Your task to perform on an android device: open app "LiveIn - Share Your Moment" (install if not already installed) and go to login screen Image 0: 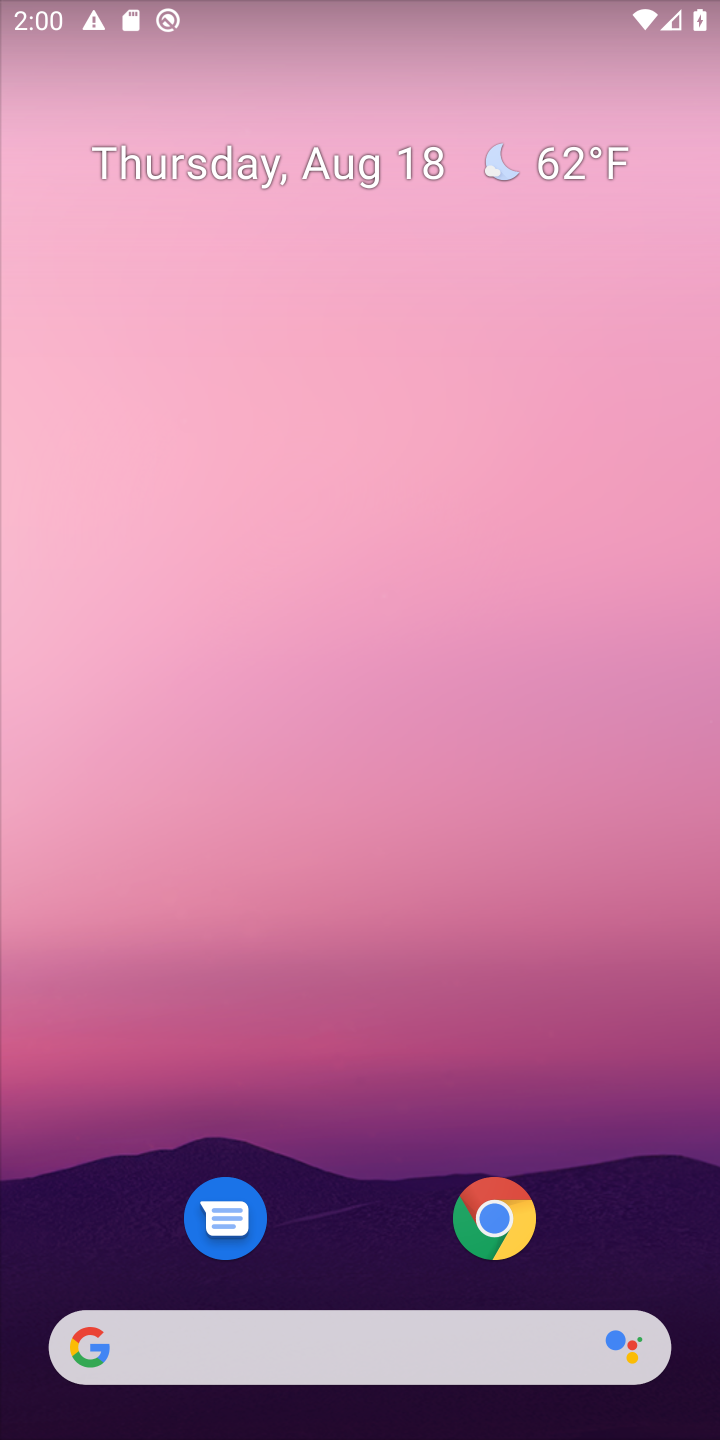
Step 0: drag from (332, 878) to (412, 222)
Your task to perform on an android device: open app "LiveIn - Share Your Moment" (install if not already installed) and go to login screen Image 1: 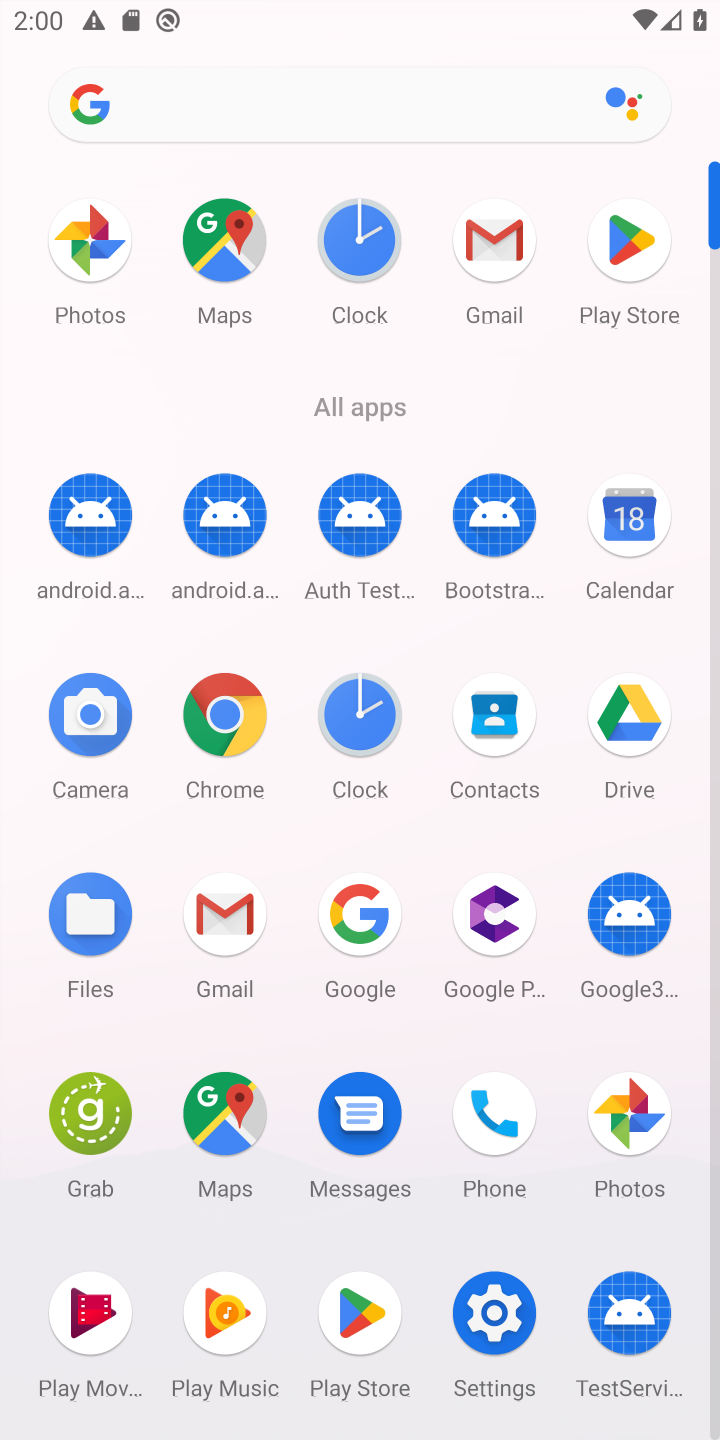
Step 1: click (601, 252)
Your task to perform on an android device: open app "LiveIn - Share Your Moment" (install if not already installed) and go to login screen Image 2: 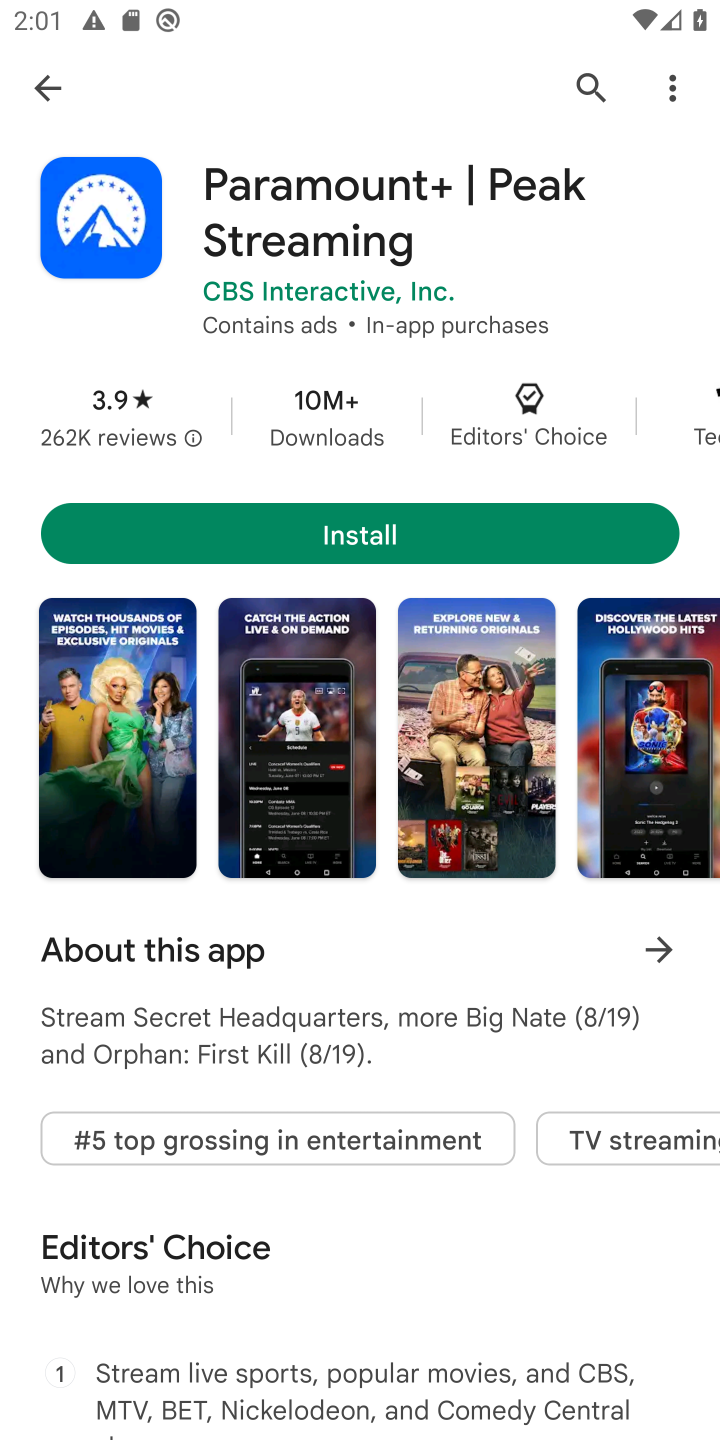
Step 2: click (589, 78)
Your task to perform on an android device: open app "LiveIn - Share Your Moment" (install if not already installed) and go to login screen Image 3: 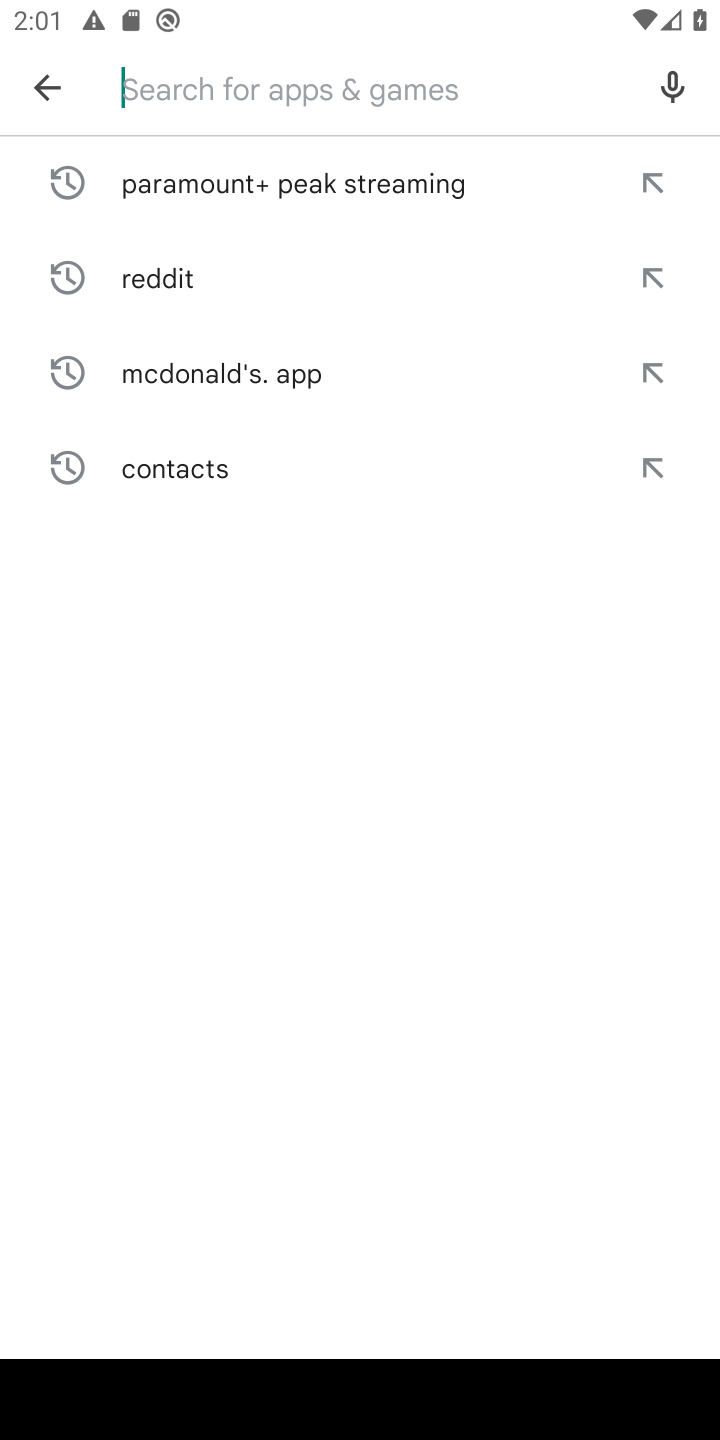
Step 3: type "LiveIn - Share Your Moment"
Your task to perform on an android device: open app "LiveIn - Share Your Moment" (install if not already installed) and go to login screen Image 4: 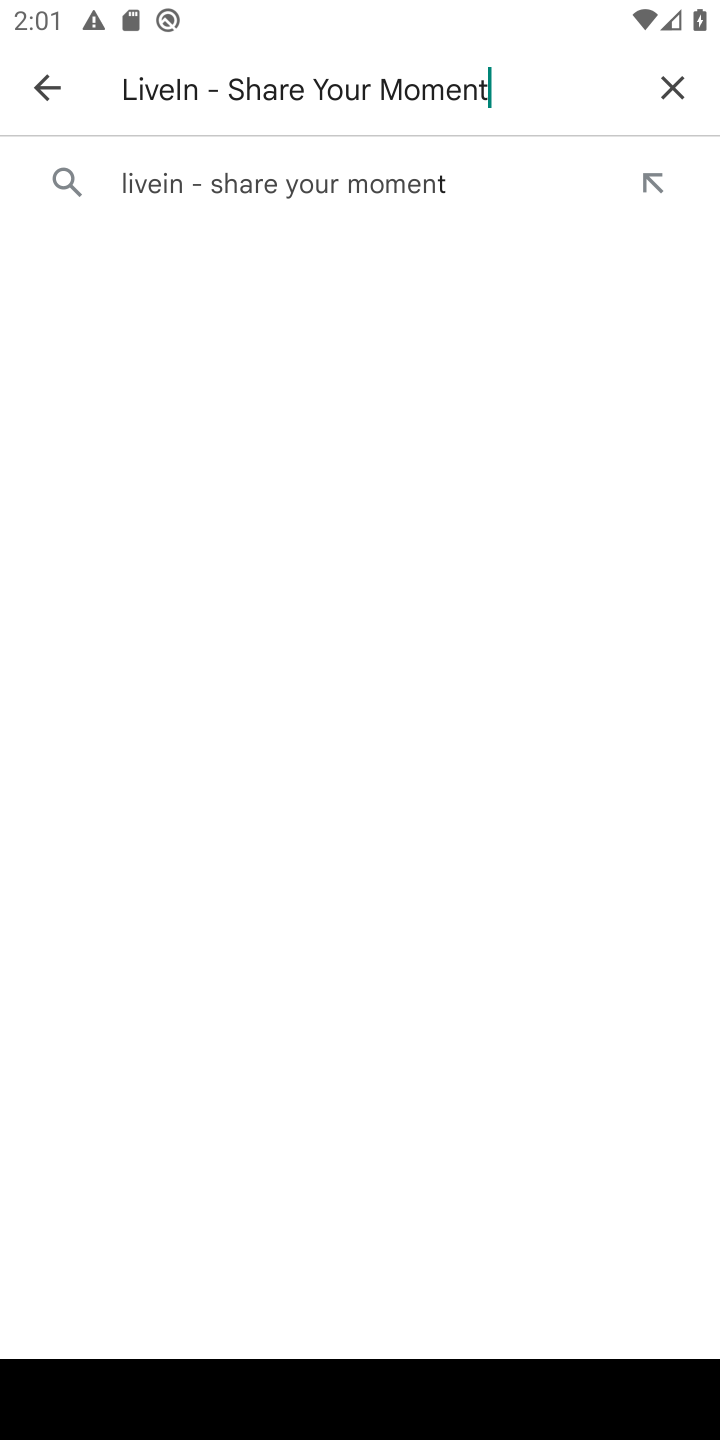
Step 4: type ""
Your task to perform on an android device: open app "LiveIn - Share Your Moment" (install if not already installed) and go to login screen Image 5: 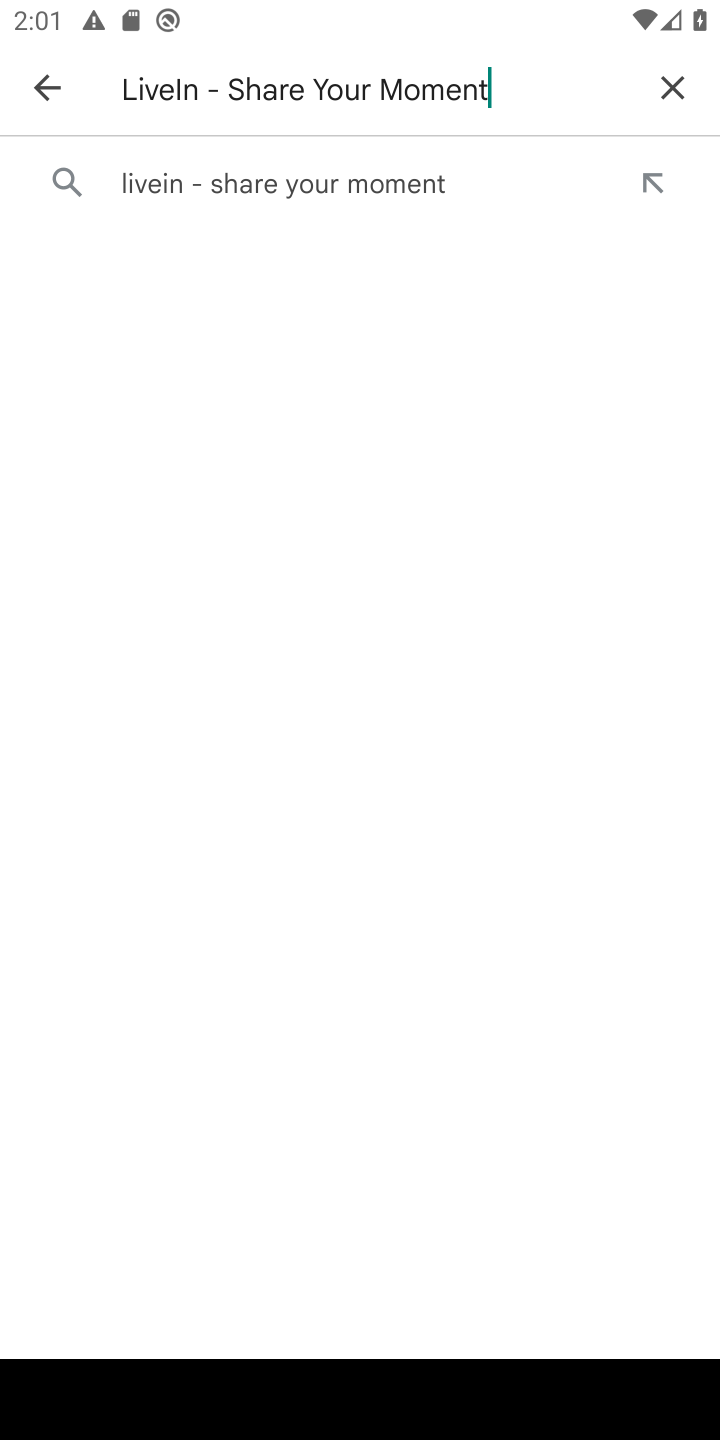
Step 5: click (285, 190)
Your task to perform on an android device: open app "LiveIn - Share Your Moment" (install if not already installed) and go to login screen Image 6: 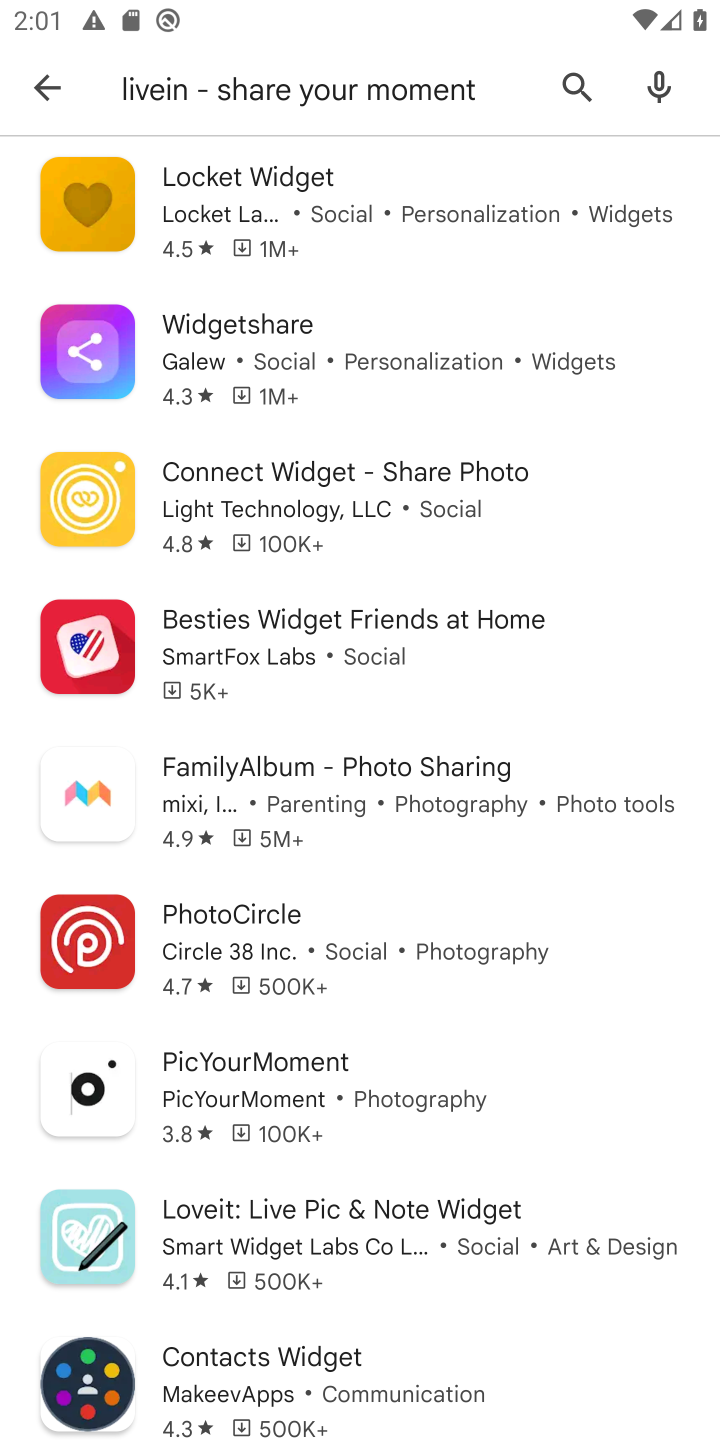
Step 6: task complete